Your task to perform on an android device: all mails in gmail Image 0: 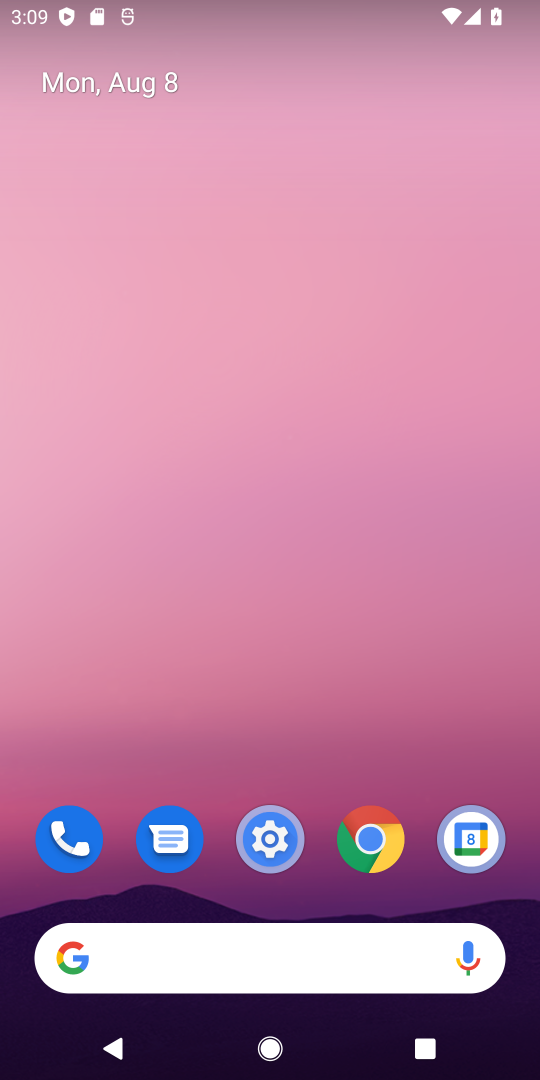
Step 0: drag from (293, 814) to (221, 229)
Your task to perform on an android device: all mails in gmail Image 1: 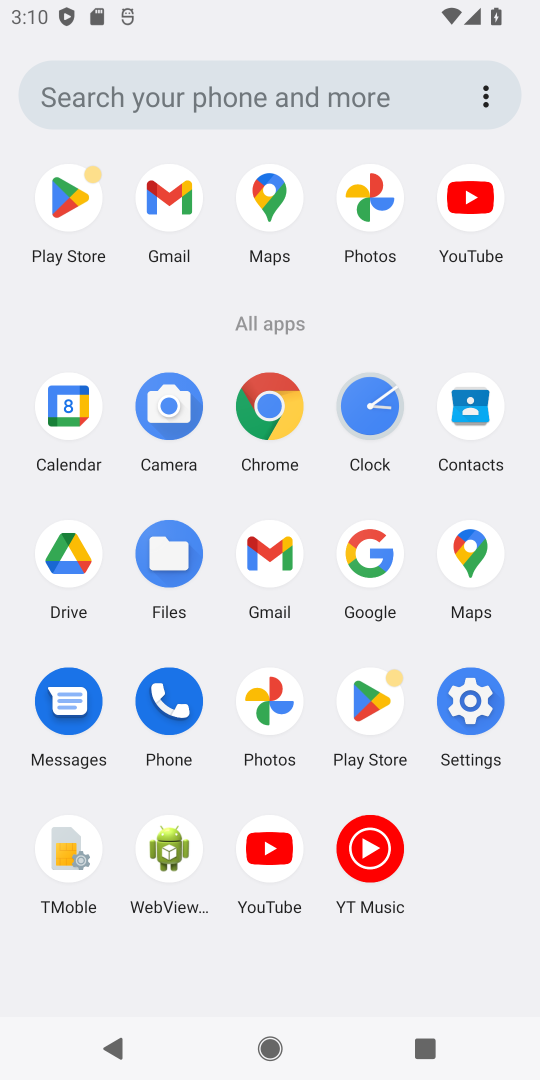
Step 1: click (284, 546)
Your task to perform on an android device: all mails in gmail Image 2: 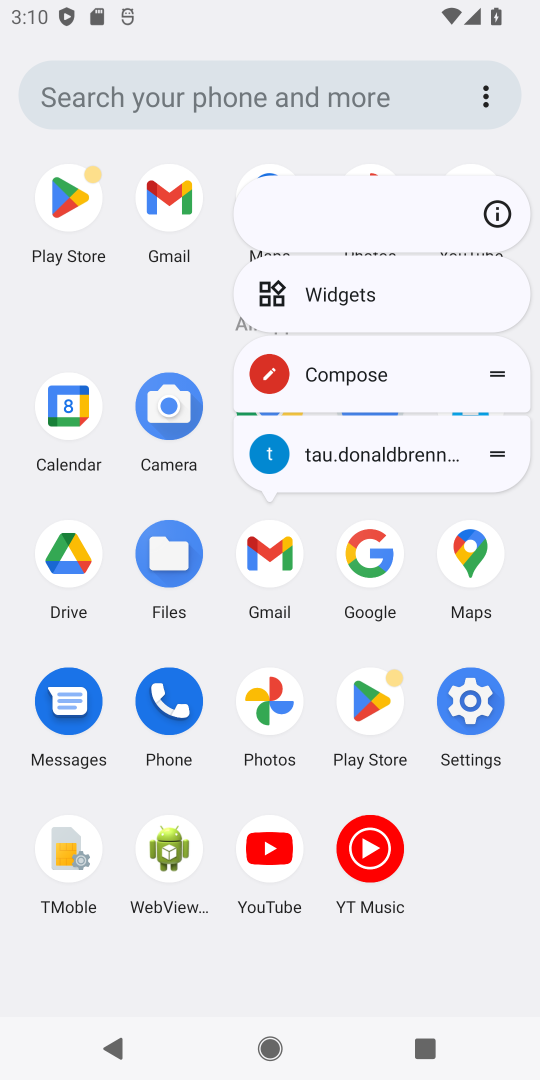
Step 2: click (272, 582)
Your task to perform on an android device: all mails in gmail Image 3: 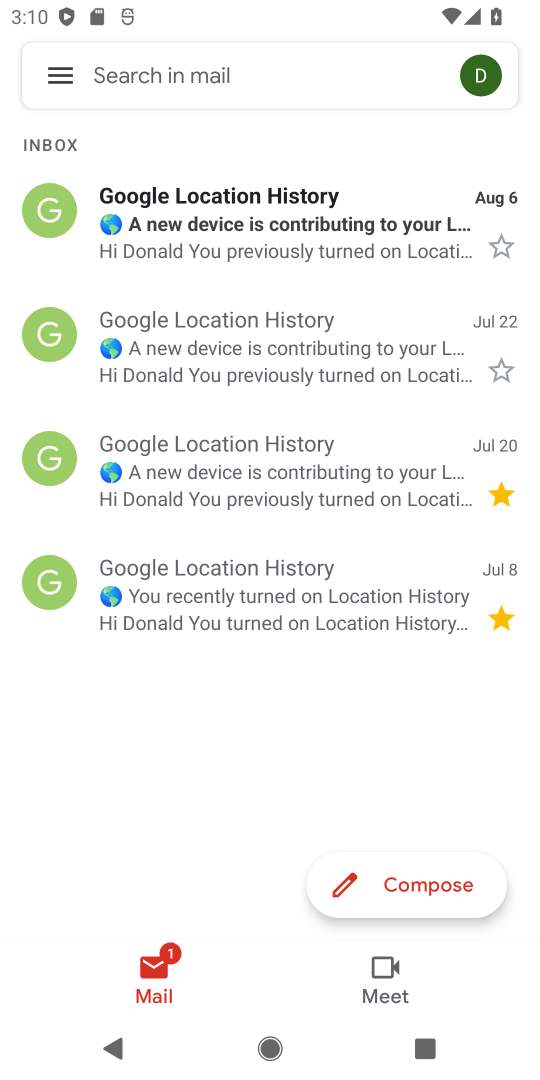
Step 3: click (48, 75)
Your task to perform on an android device: all mails in gmail Image 4: 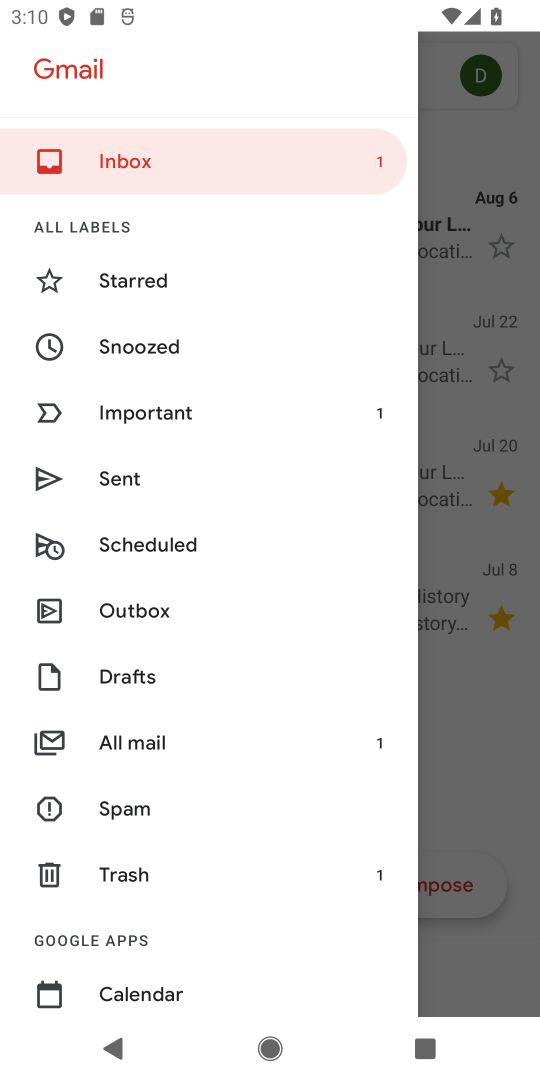
Step 4: click (141, 727)
Your task to perform on an android device: all mails in gmail Image 5: 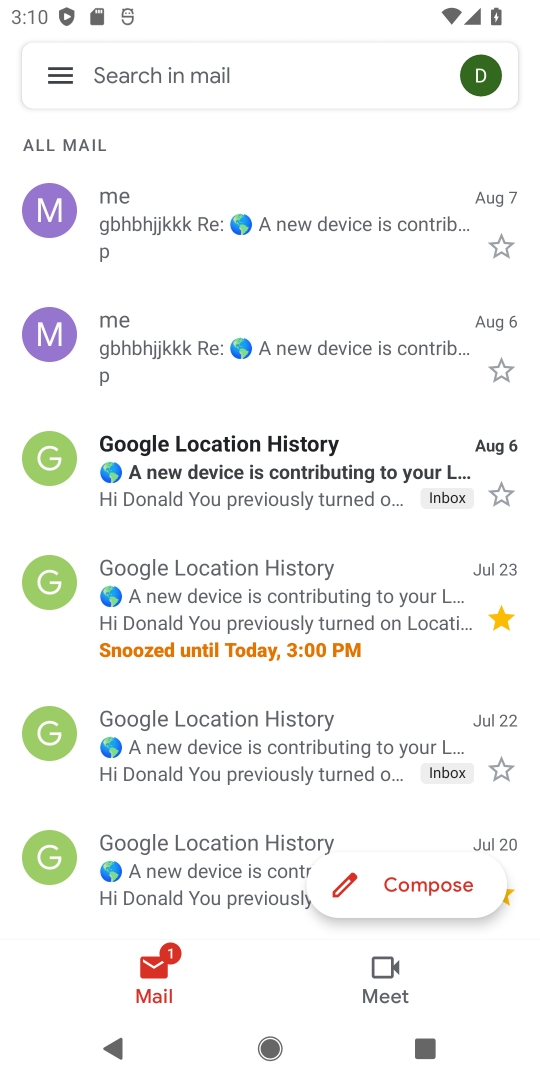
Step 5: task complete